Your task to perform on an android device: open a bookmark in the chrome app Image 0: 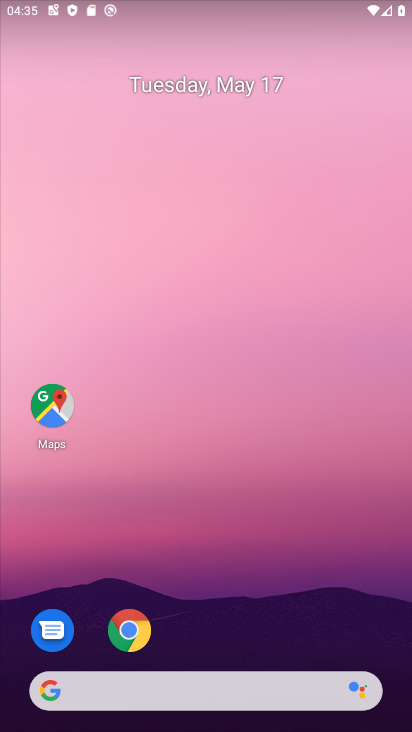
Step 0: click (129, 637)
Your task to perform on an android device: open a bookmark in the chrome app Image 1: 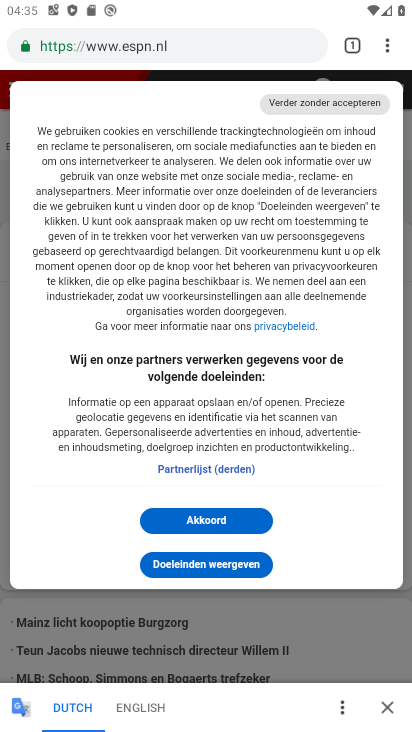
Step 1: task complete